Your task to perform on an android device: add a contact in the contacts app Image 0: 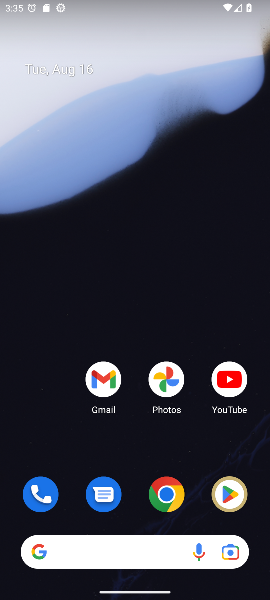
Step 0: drag from (147, 516) to (142, 76)
Your task to perform on an android device: add a contact in the contacts app Image 1: 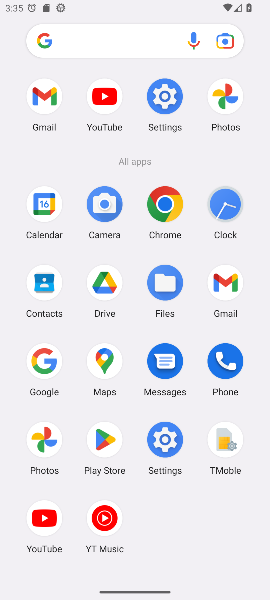
Step 1: click (214, 353)
Your task to perform on an android device: add a contact in the contacts app Image 2: 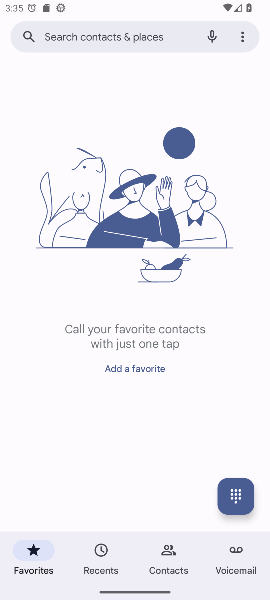
Step 2: click (153, 546)
Your task to perform on an android device: add a contact in the contacts app Image 3: 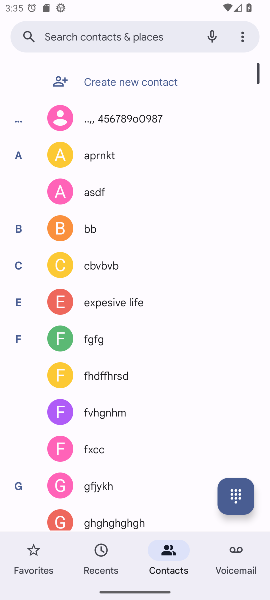
Step 3: click (118, 83)
Your task to perform on an android device: add a contact in the contacts app Image 4: 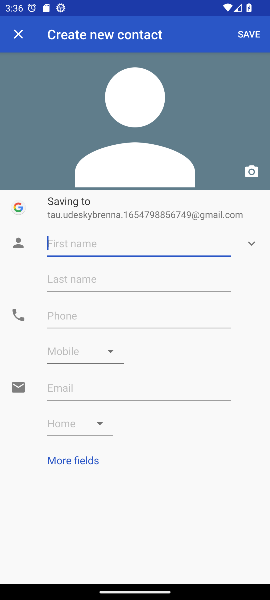
Step 4: type "gg"
Your task to perform on an android device: add a contact in the contacts app Image 5: 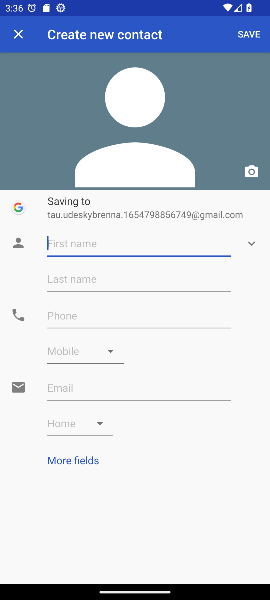
Step 5: type ""
Your task to perform on an android device: add a contact in the contacts app Image 6: 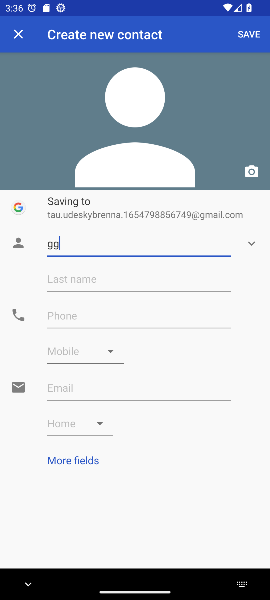
Step 6: click (89, 317)
Your task to perform on an android device: add a contact in the contacts app Image 7: 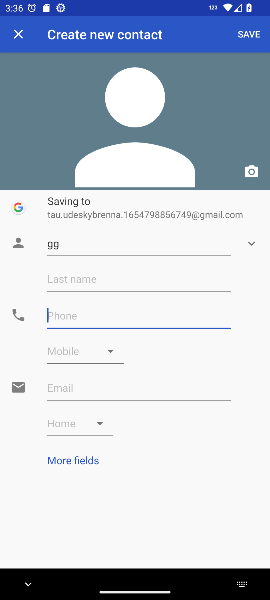
Step 7: type "54"
Your task to perform on an android device: add a contact in the contacts app Image 8: 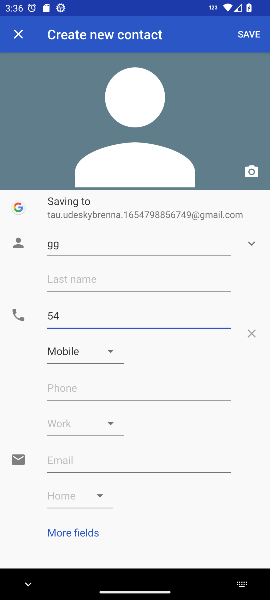
Step 8: click (253, 29)
Your task to perform on an android device: add a contact in the contacts app Image 9: 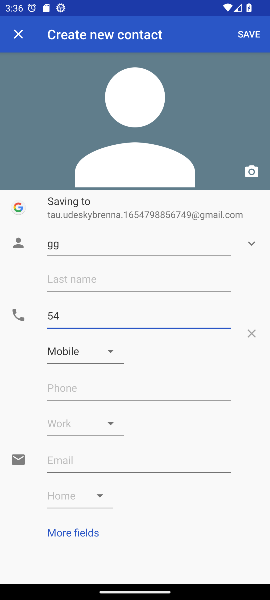
Step 9: task complete